Your task to perform on an android device: Open ESPN.com Image 0: 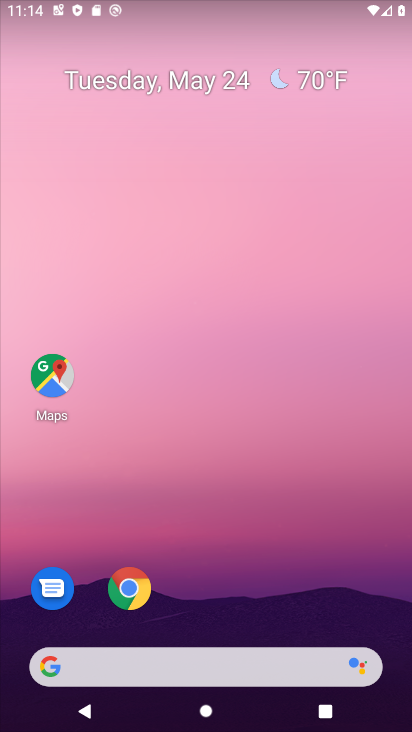
Step 0: drag from (210, 620) to (226, 76)
Your task to perform on an android device: Open ESPN.com Image 1: 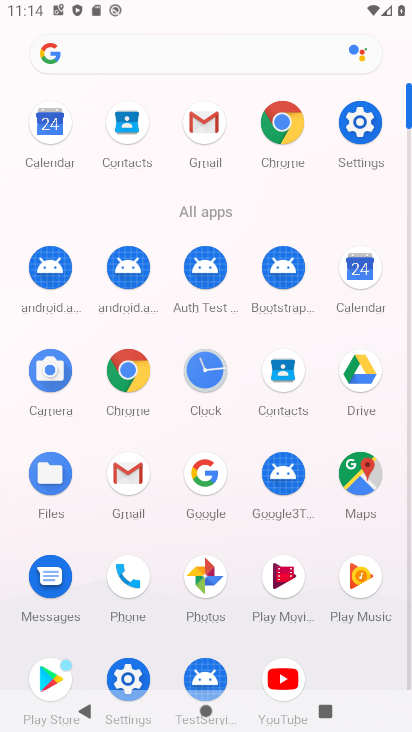
Step 1: click (282, 115)
Your task to perform on an android device: Open ESPN.com Image 2: 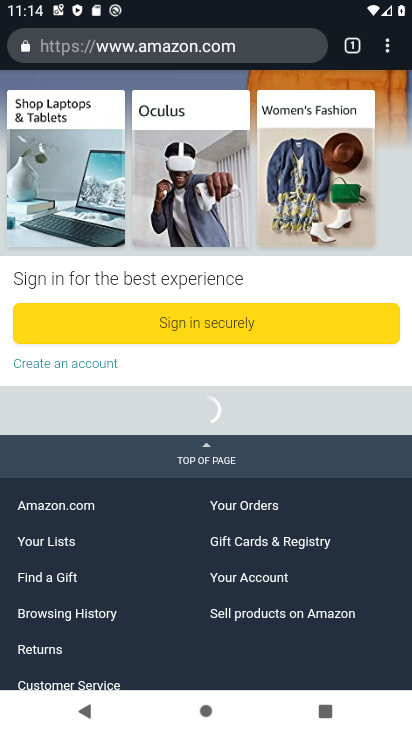
Step 2: drag from (239, 194) to (241, 628)
Your task to perform on an android device: Open ESPN.com Image 3: 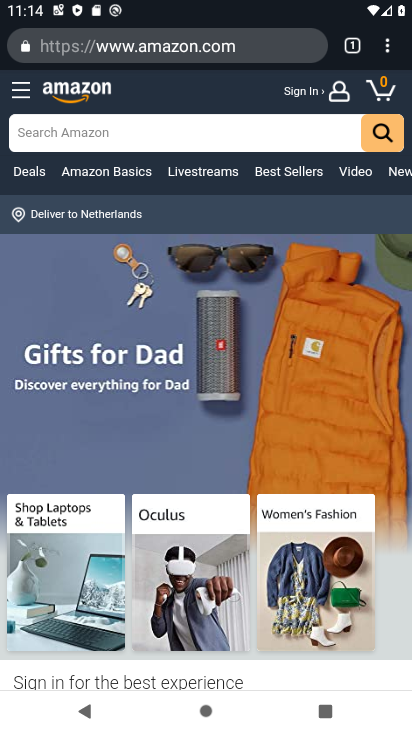
Step 3: click (348, 39)
Your task to perform on an android device: Open ESPN.com Image 4: 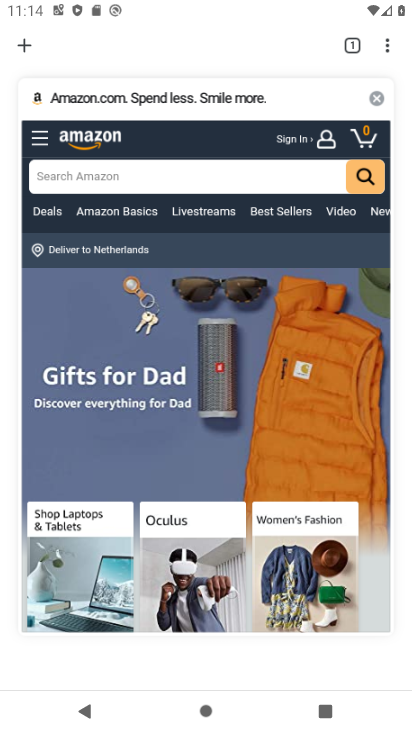
Step 4: click (377, 94)
Your task to perform on an android device: Open ESPN.com Image 5: 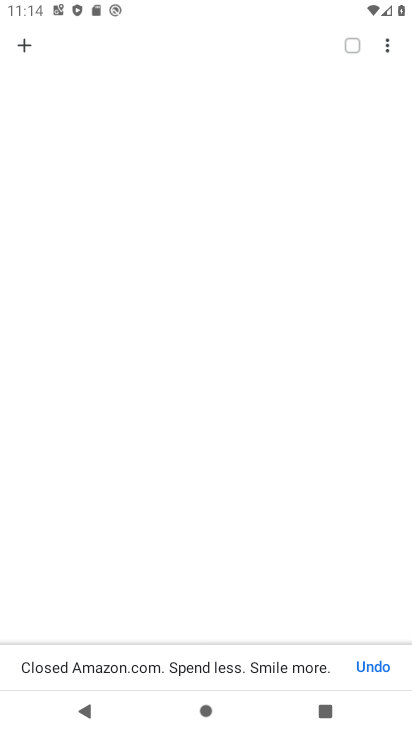
Step 5: click (25, 44)
Your task to perform on an android device: Open ESPN.com Image 6: 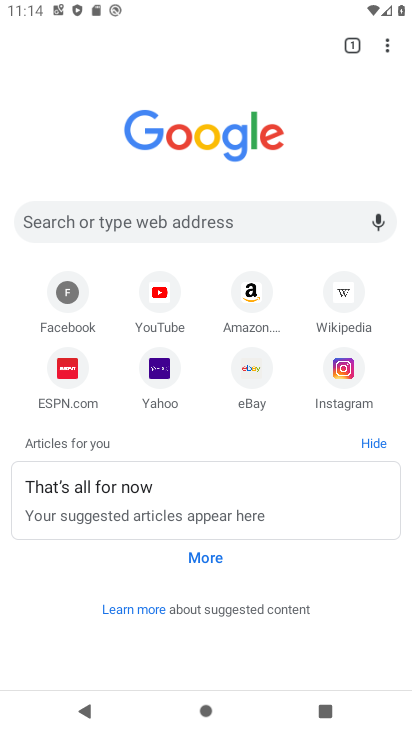
Step 6: click (63, 365)
Your task to perform on an android device: Open ESPN.com Image 7: 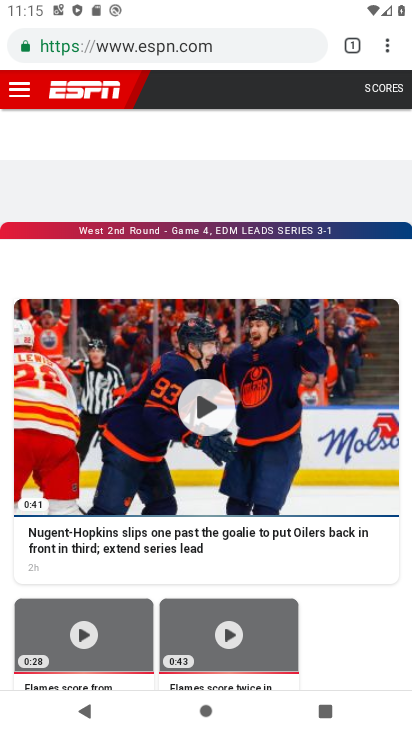
Step 7: task complete